Your task to perform on an android device: Search for Mexican restaurants on Maps Image 0: 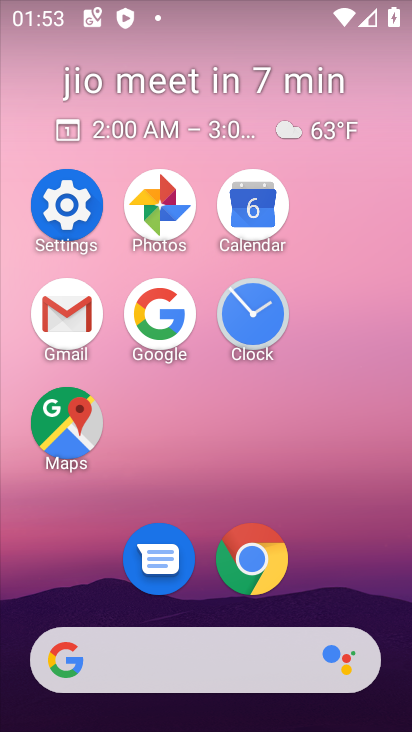
Step 0: click (69, 420)
Your task to perform on an android device: Search for Mexican restaurants on Maps Image 1: 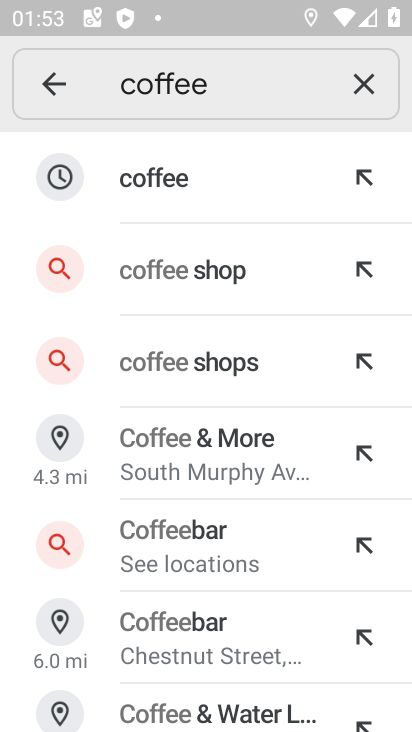
Step 1: click (374, 78)
Your task to perform on an android device: Search for Mexican restaurants on Maps Image 2: 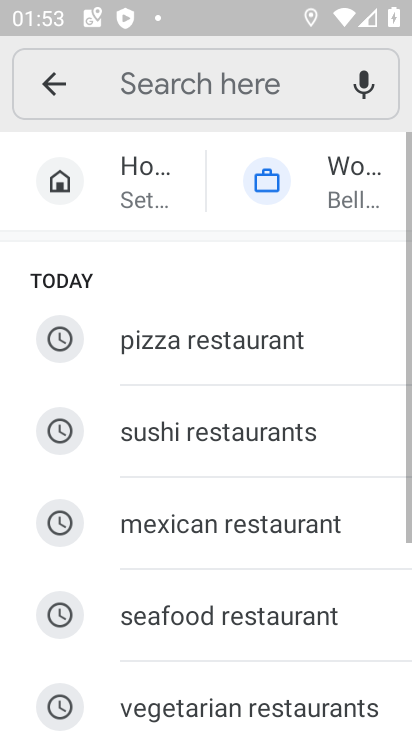
Step 2: click (226, 90)
Your task to perform on an android device: Search for Mexican restaurants on Maps Image 3: 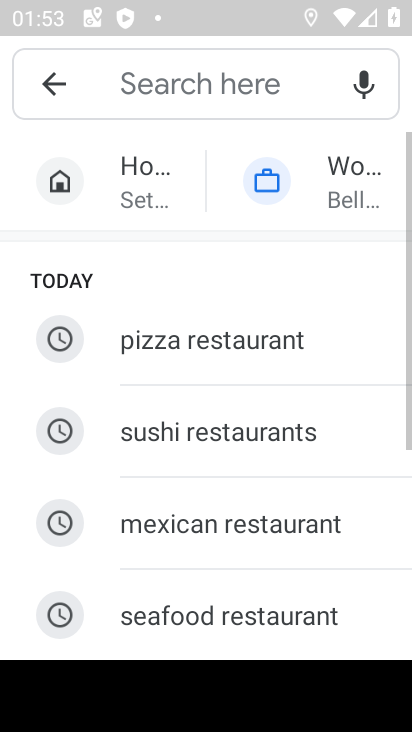
Step 3: click (205, 523)
Your task to perform on an android device: Search for Mexican restaurants on Maps Image 4: 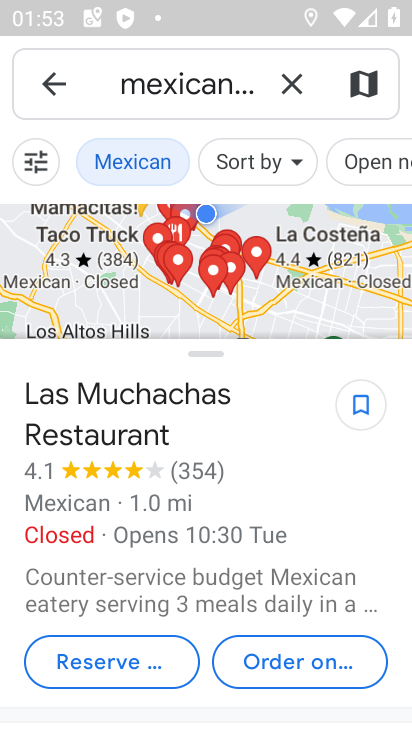
Step 4: task complete